Your task to perform on an android device: Empty the shopping cart on ebay. Image 0: 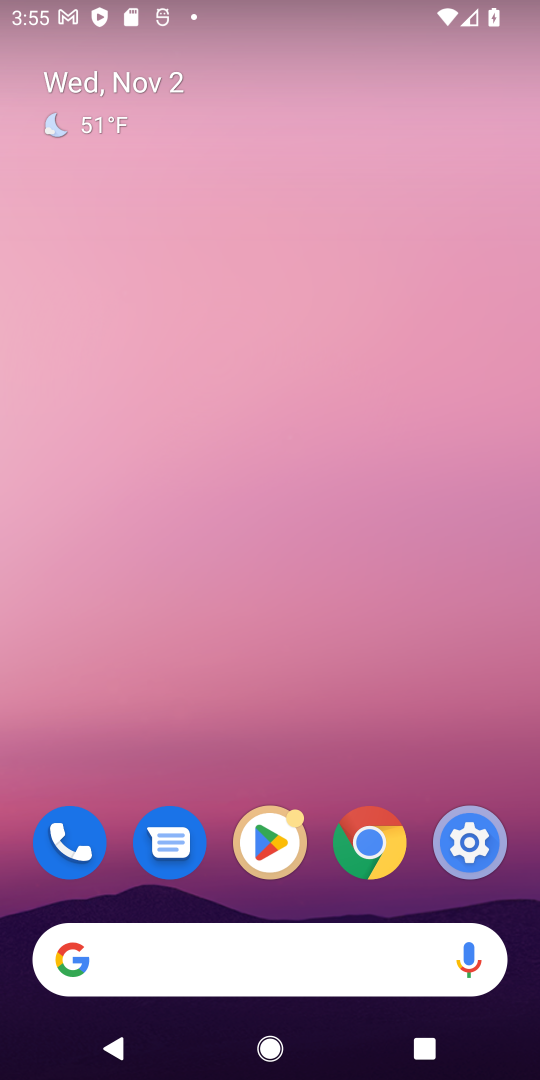
Step 0: click (250, 959)
Your task to perform on an android device: Empty the shopping cart on ebay. Image 1: 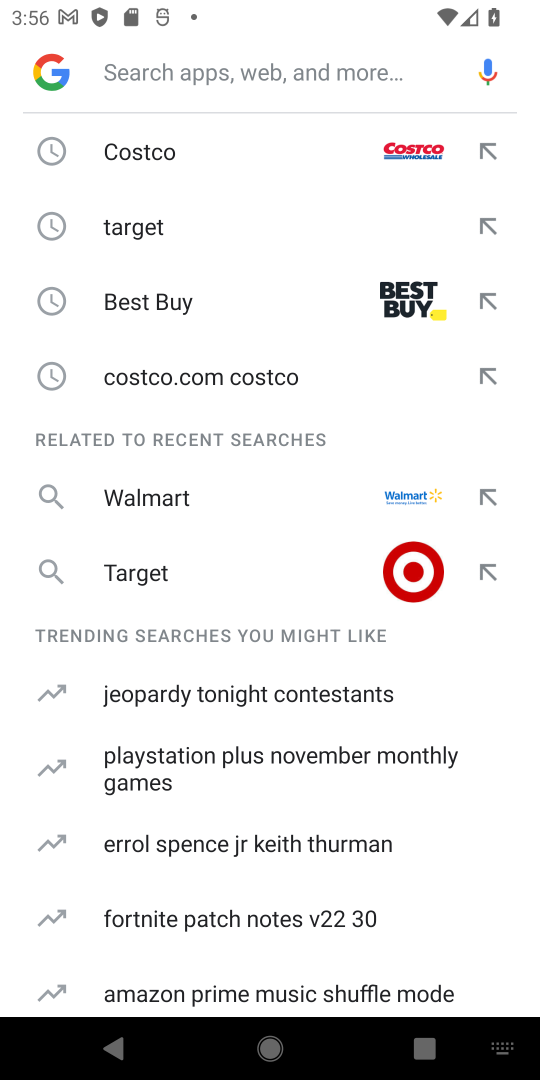
Step 1: type "ebay"
Your task to perform on an android device: Empty the shopping cart on ebay. Image 2: 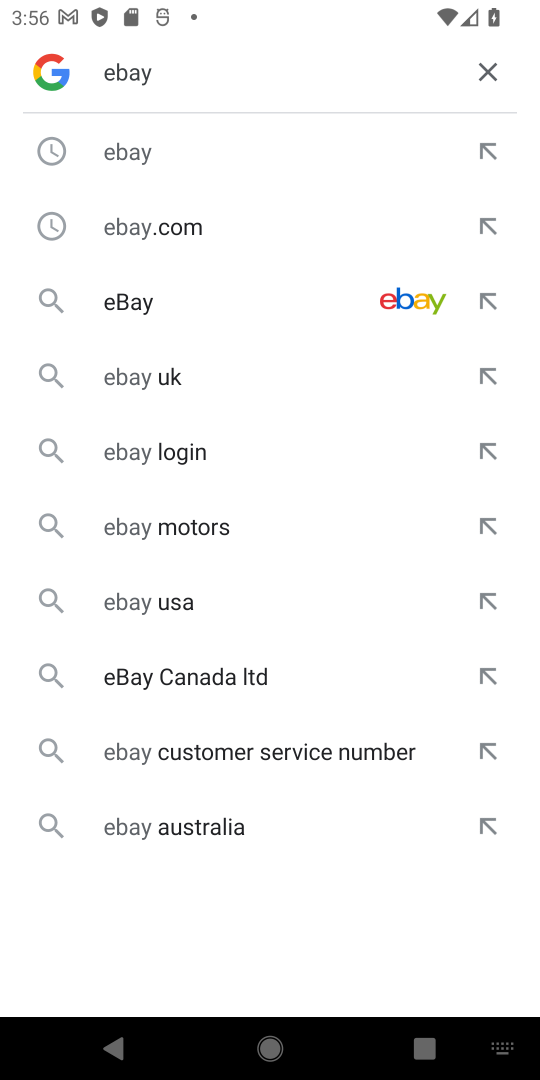
Step 2: click (162, 220)
Your task to perform on an android device: Empty the shopping cart on ebay. Image 3: 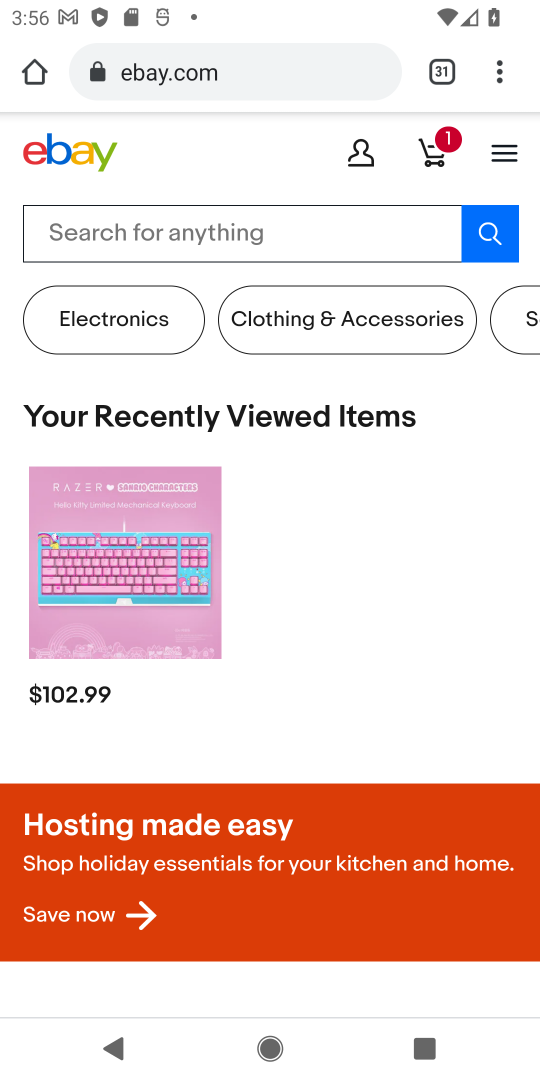
Step 3: click (433, 143)
Your task to perform on an android device: Empty the shopping cart on ebay. Image 4: 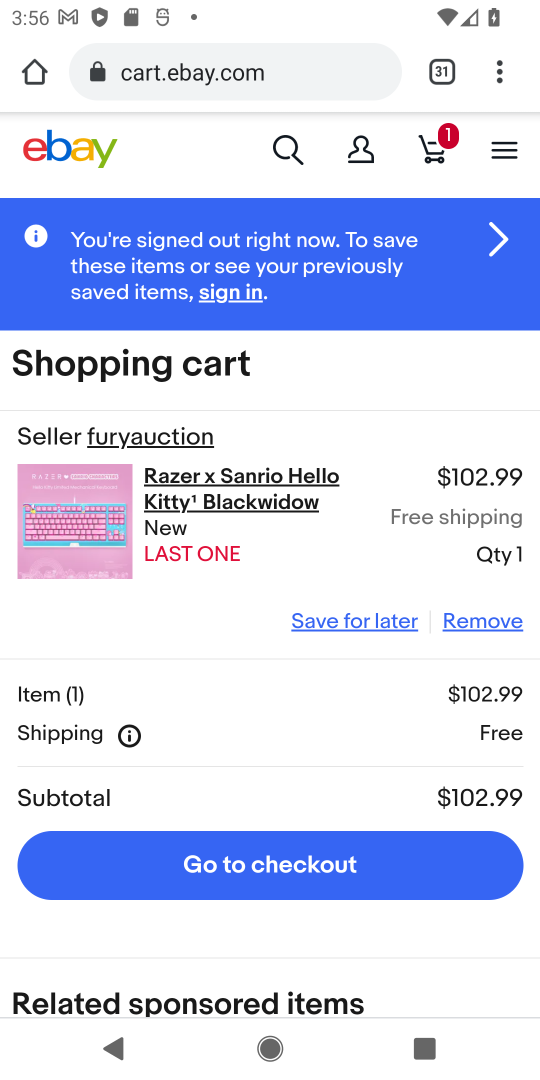
Step 4: click (478, 627)
Your task to perform on an android device: Empty the shopping cart on ebay. Image 5: 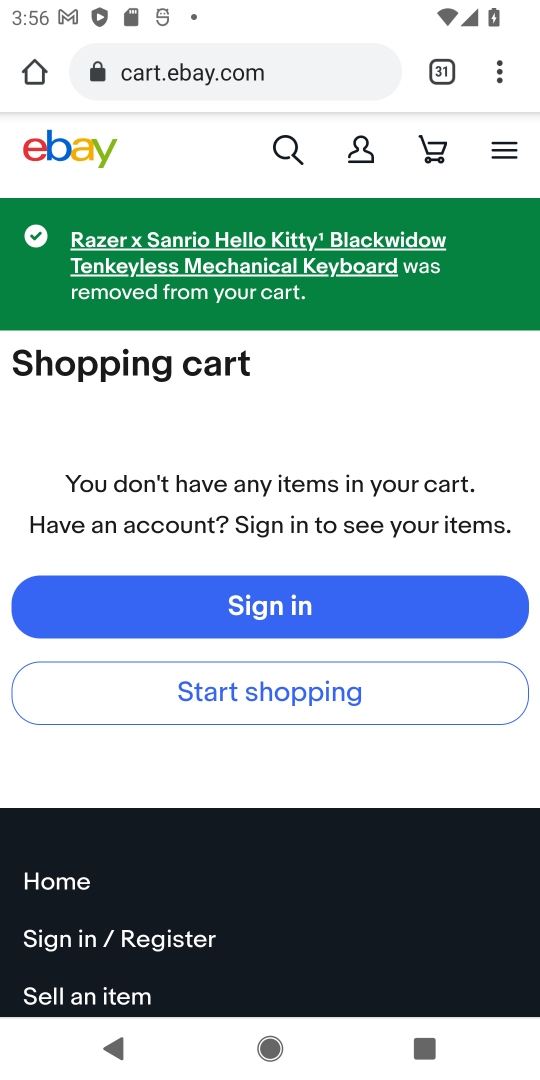
Step 5: task complete